Your task to perform on an android device: refresh tabs in the chrome app Image 0: 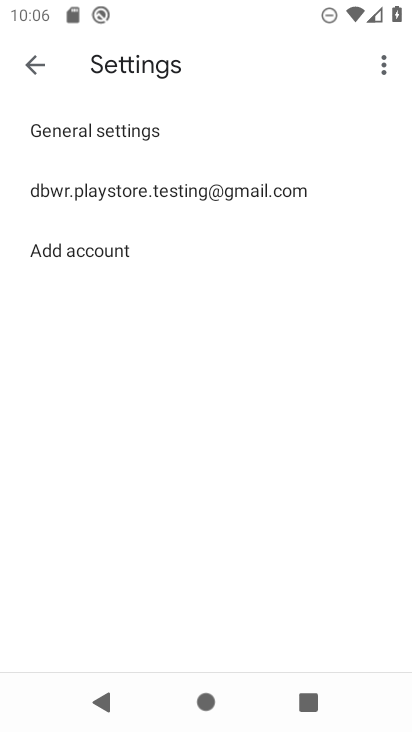
Step 0: press home button
Your task to perform on an android device: refresh tabs in the chrome app Image 1: 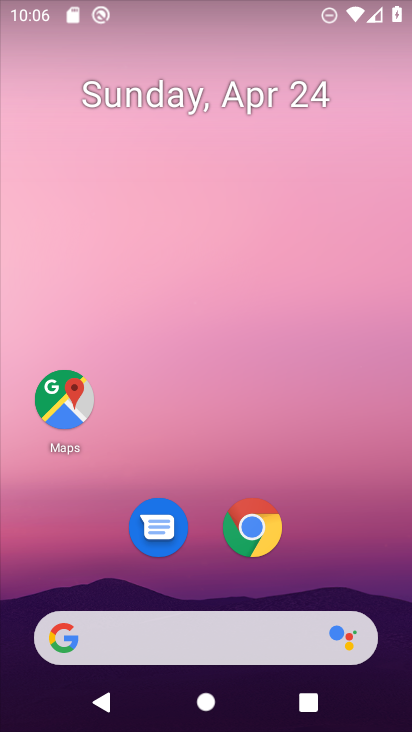
Step 1: click (255, 530)
Your task to perform on an android device: refresh tabs in the chrome app Image 2: 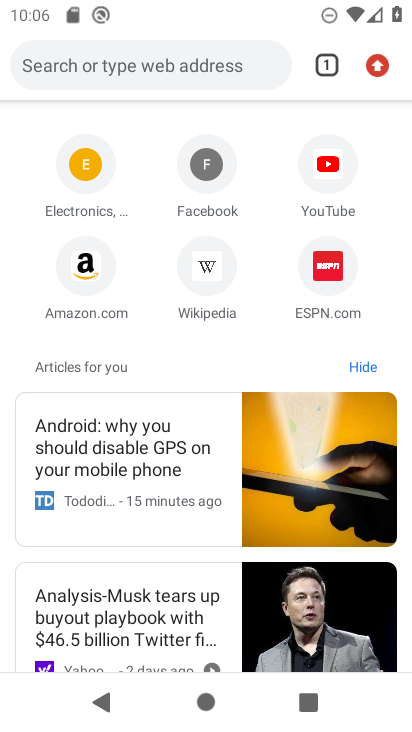
Step 2: click (374, 66)
Your task to perform on an android device: refresh tabs in the chrome app Image 3: 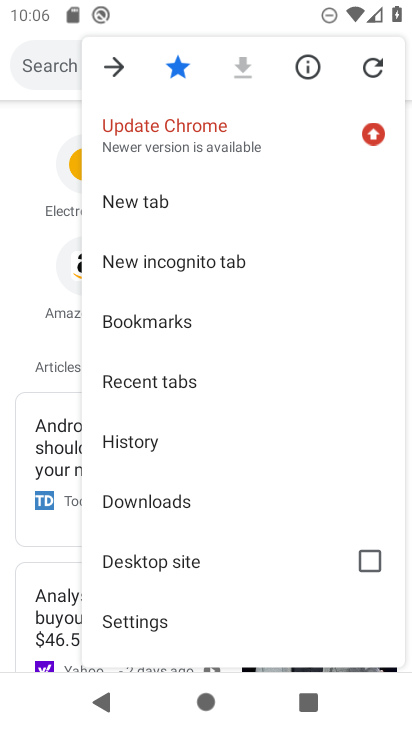
Step 3: click (373, 65)
Your task to perform on an android device: refresh tabs in the chrome app Image 4: 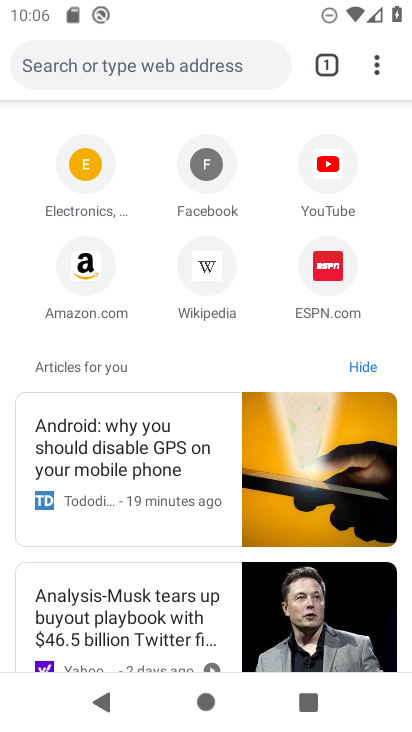
Step 4: task complete